Your task to perform on an android device: check out phone information Image 0: 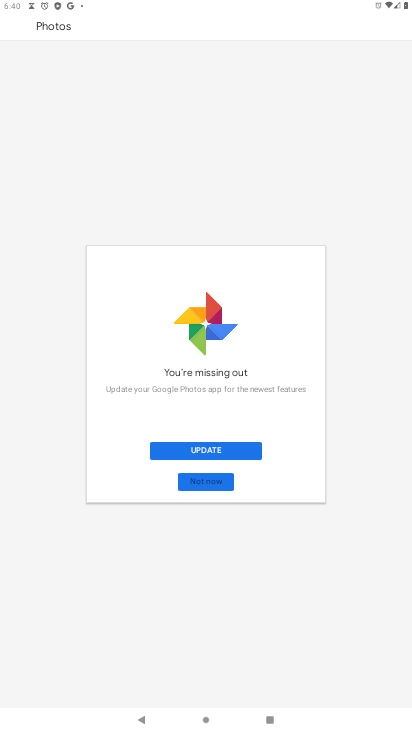
Step 0: press home button
Your task to perform on an android device: check out phone information Image 1: 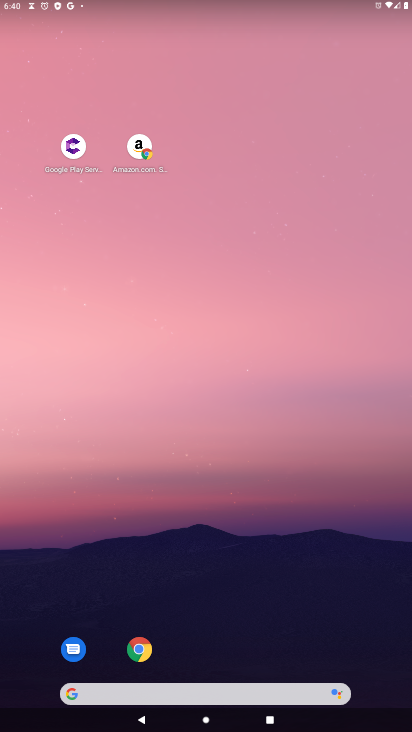
Step 1: drag from (262, 666) to (307, 67)
Your task to perform on an android device: check out phone information Image 2: 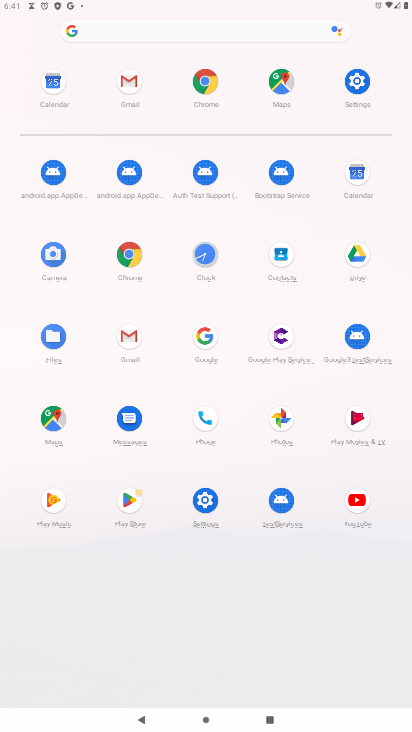
Step 2: click (352, 79)
Your task to perform on an android device: check out phone information Image 3: 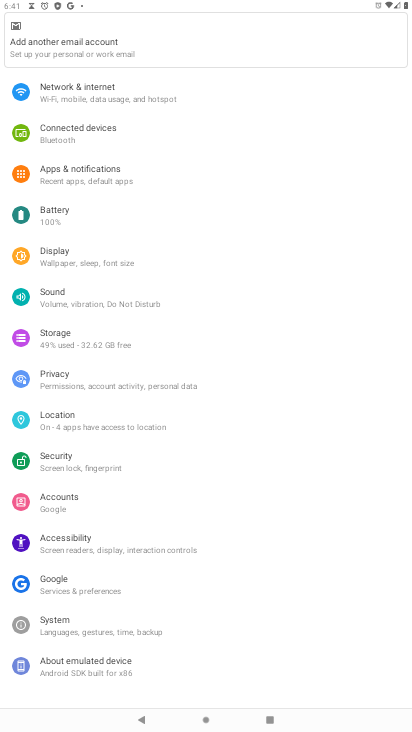
Step 3: click (129, 679)
Your task to perform on an android device: check out phone information Image 4: 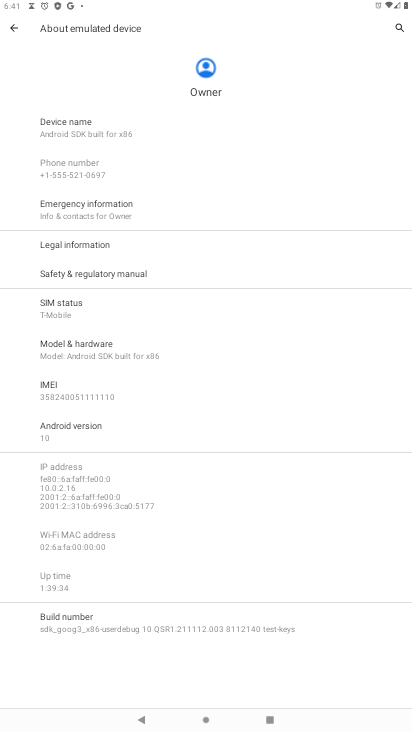
Step 4: task complete